Your task to perform on an android device: What's the weather going to be tomorrow? Image 0: 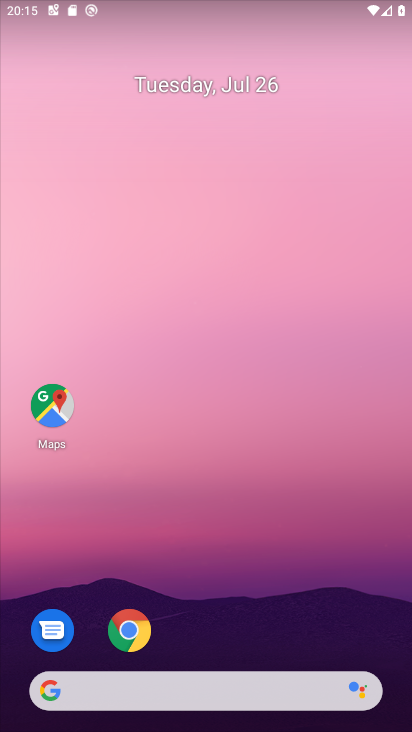
Step 0: drag from (399, 628) to (347, 44)
Your task to perform on an android device: What's the weather going to be tomorrow? Image 1: 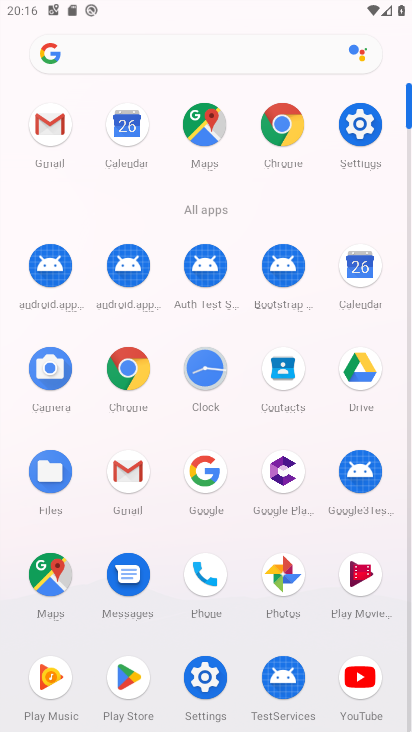
Step 1: click (354, 274)
Your task to perform on an android device: What's the weather going to be tomorrow? Image 2: 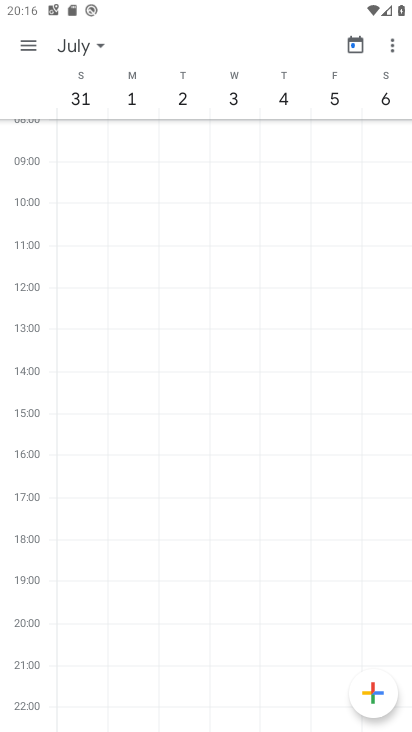
Step 2: press home button
Your task to perform on an android device: What's the weather going to be tomorrow? Image 3: 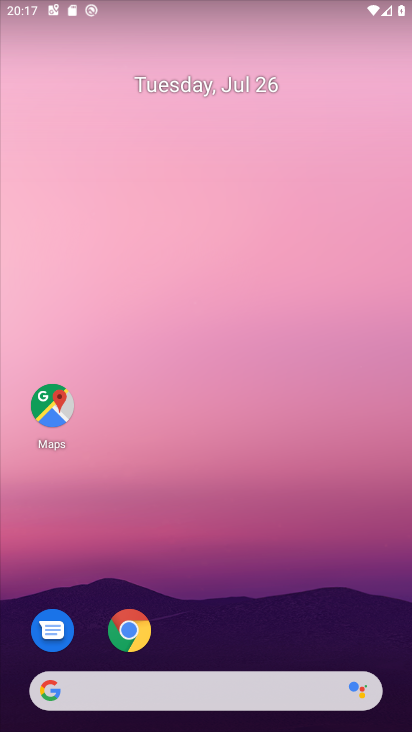
Step 3: drag from (396, 708) to (326, 164)
Your task to perform on an android device: What's the weather going to be tomorrow? Image 4: 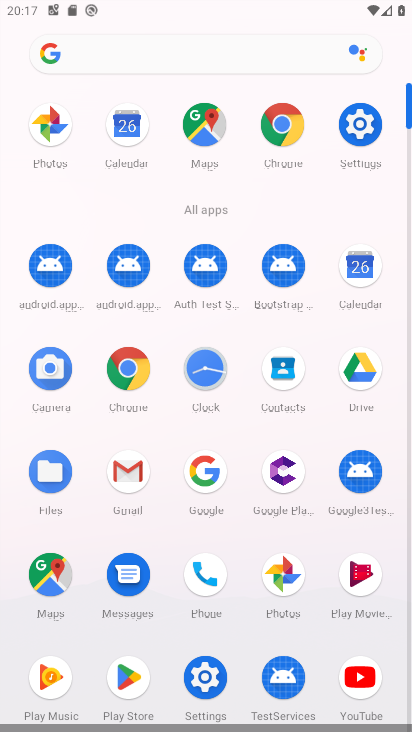
Step 4: click (196, 473)
Your task to perform on an android device: What's the weather going to be tomorrow? Image 5: 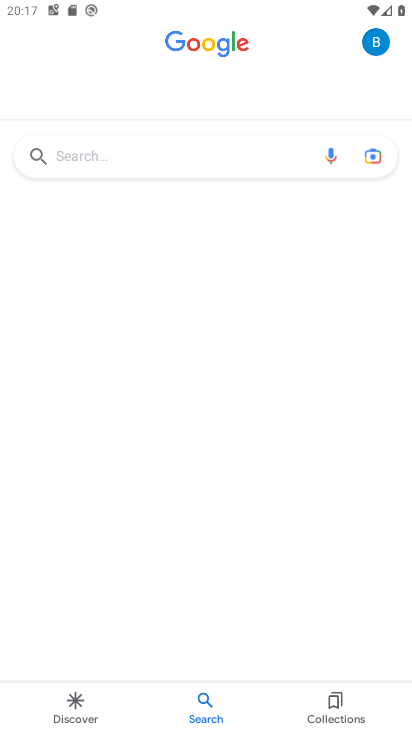
Step 5: task complete